Your task to perform on an android device: turn off wifi Image 0: 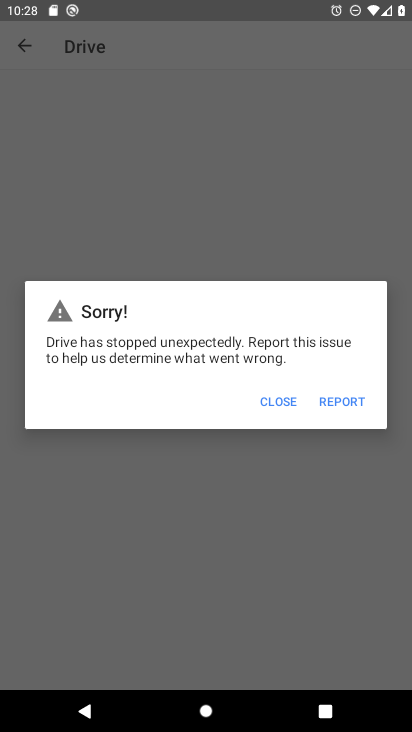
Step 0: drag from (210, 602) to (202, 219)
Your task to perform on an android device: turn off wifi Image 1: 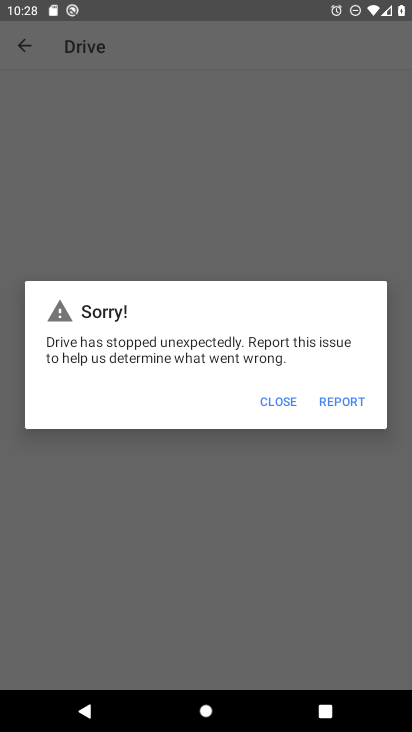
Step 1: drag from (132, 16) to (170, 492)
Your task to perform on an android device: turn off wifi Image 2: 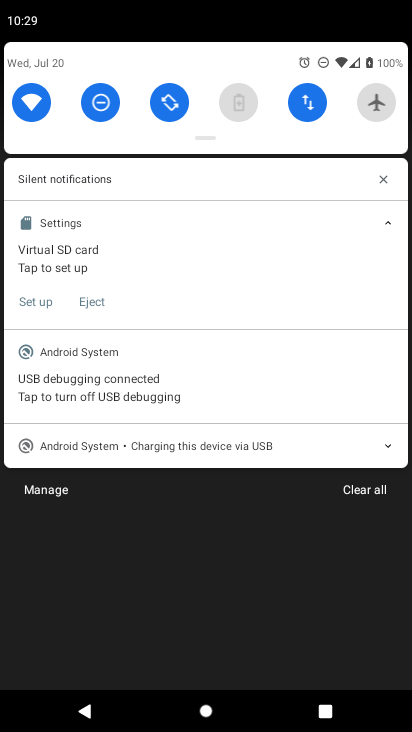
Step 2: click (45, 103)
Your task to perform on an android device: turn off wifi Image 3: 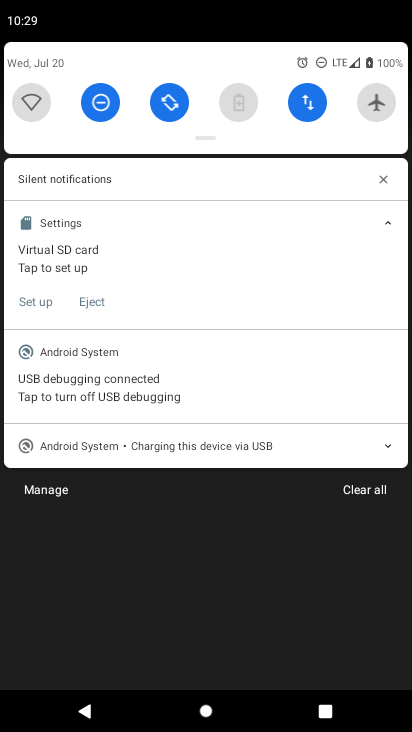
Step 3: task complete